Your task to perform on an android device: turn off javascript in the chrome app Image 0: 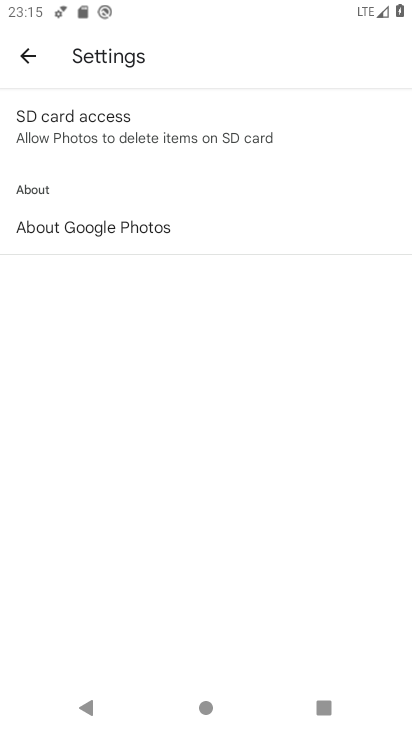
Step 0: drag from (264, 482) to (338, 235)
Your task to perform on an android device: turn off javascript in the chrome app Image 1: 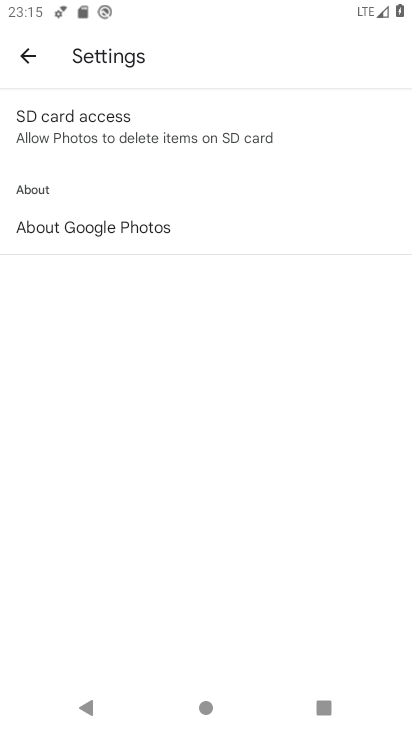
Step 1: press home button
Your task to perform on an android device: turn off javascript in the chrome app Image 2: 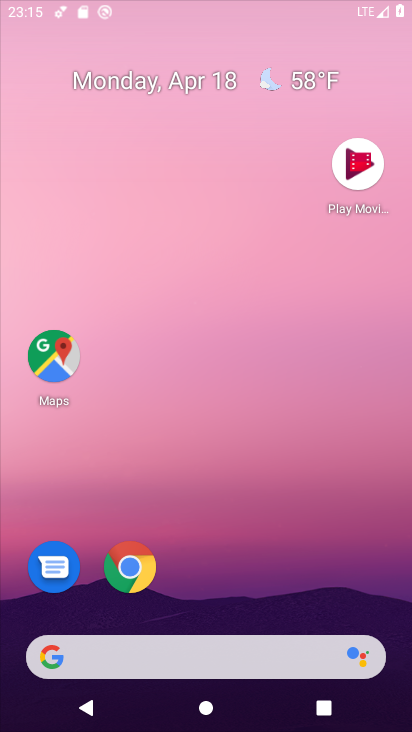
Step 2: click (285, 15)
Your task to perform on an android device: turn off javascript in the chrome app Image 3: 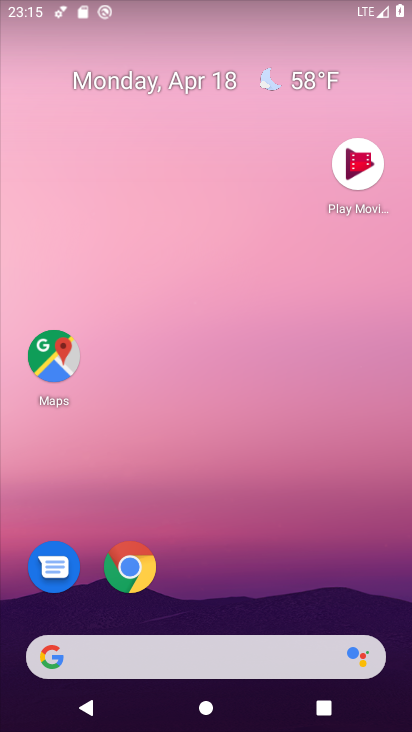
Step 3: drag from (191, 545) to (206, 189)
Your task to perform on an android device: turn off javascript in the chrome app Image 4: 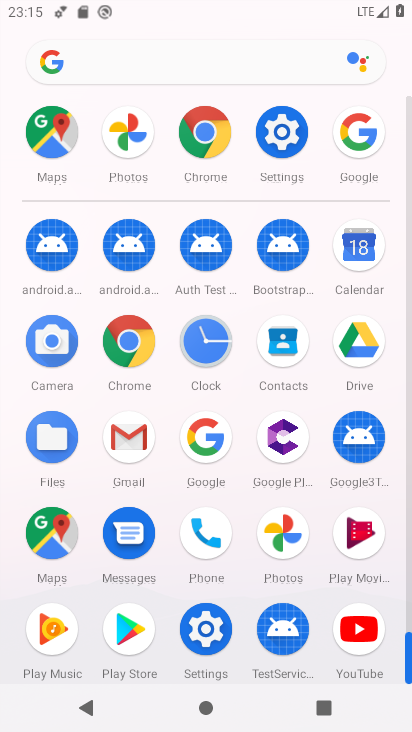
Step 4: click (123, 341)
Your task to perform on an android device: turn off javascript in the chrome app Image 5: 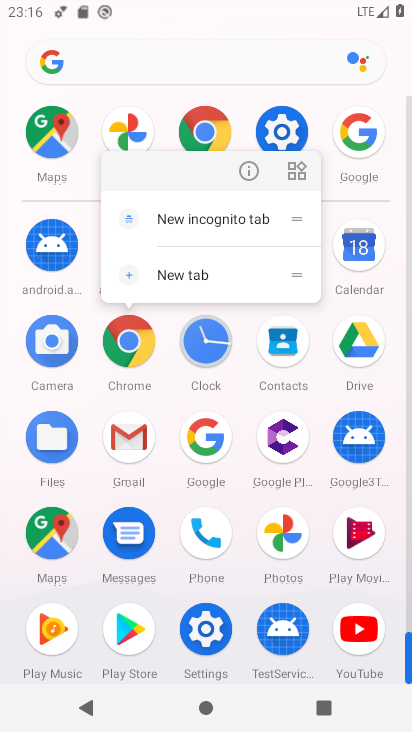
Step 5: click (251, 172)
Your task to perform on an android device: turn off javascript in the chrome app Image 6: 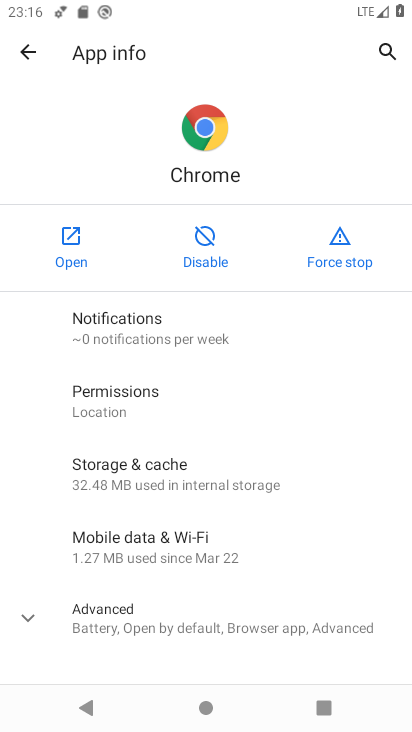
Step 6: click (78, 241)
Your task to perform on an android device: turn off javascript in the chrome app Image 7: 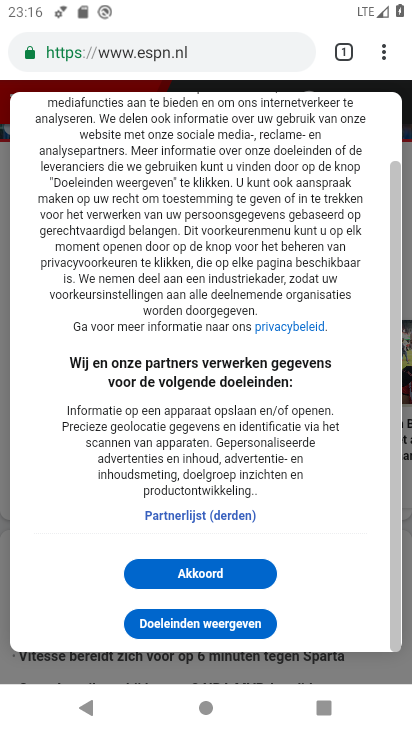
Step 7: drag from (297, 533) to (298, 307)
Your task to perform on an android device: turn off javascript in the chrome app Image 8: 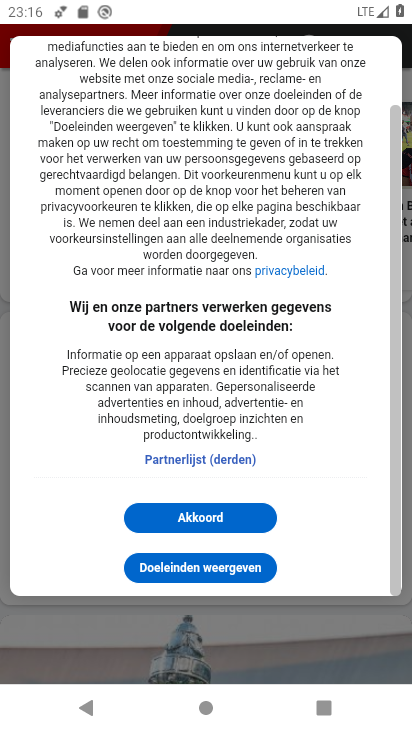
Step 8: drag from (336, 133) to (271, 566)
Your task to perform on an android device: turn off javascript in the chrome app Image 9: 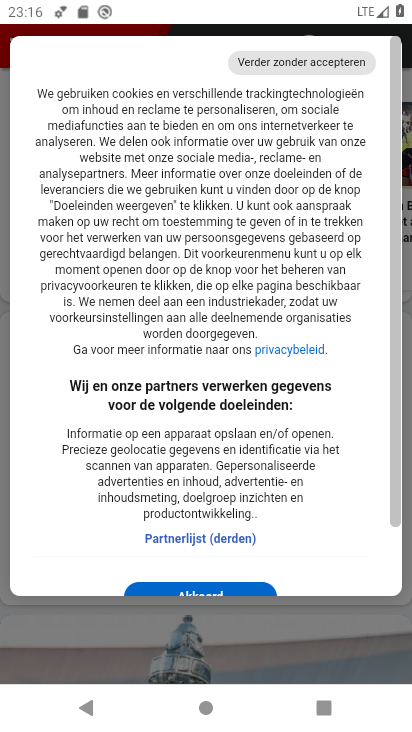
Step 9: drag from (301, 180) to (342, 441)
Your task to perform on an android device: turn off javascript in the chrome app Image 10: 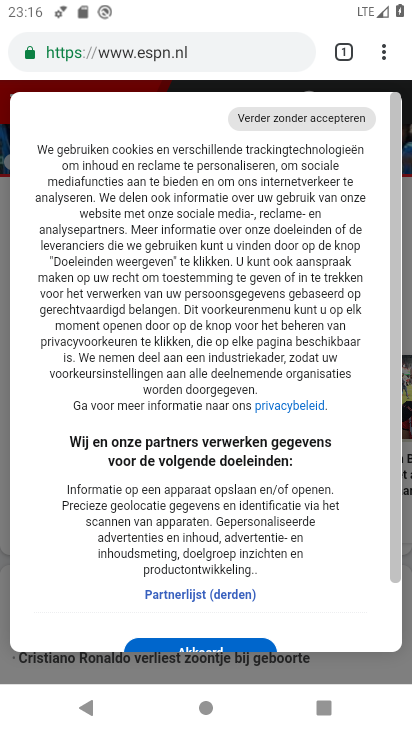
Step 10: drag from (393, 40) to (228, 604)
Your task to perform on an android device: turn off javascript in the chrome app Image 11: 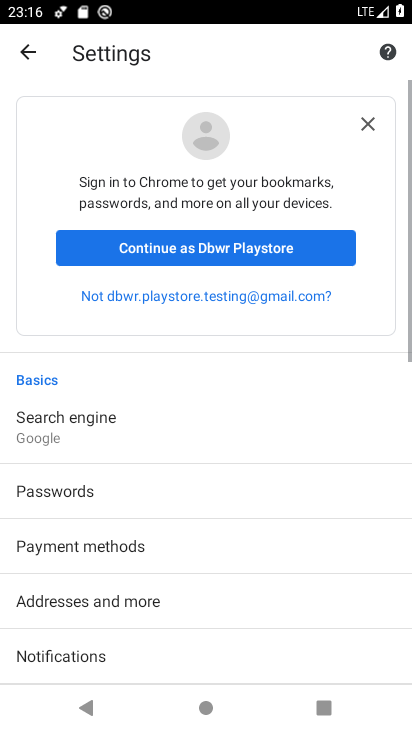
Step 11: drag from (183, 511) to (266, 151)
Your task to perform on an android device: turn off javascript in the chrome app Image 12: 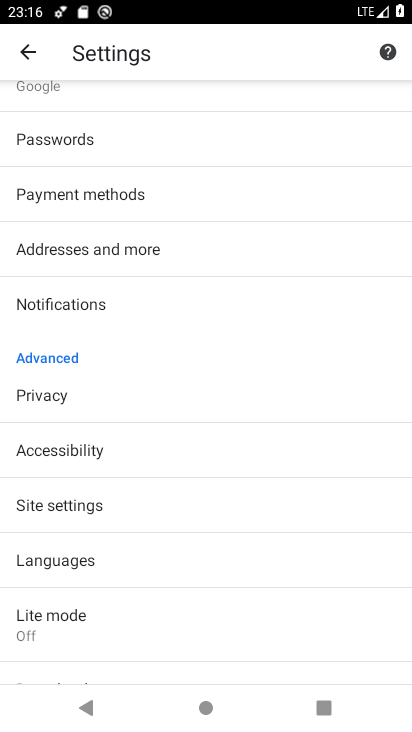
Step 12: drag from (140, 540) to (215, 209)
Your task to perform on an android device: turn off javascript in the chrome app Image 13: 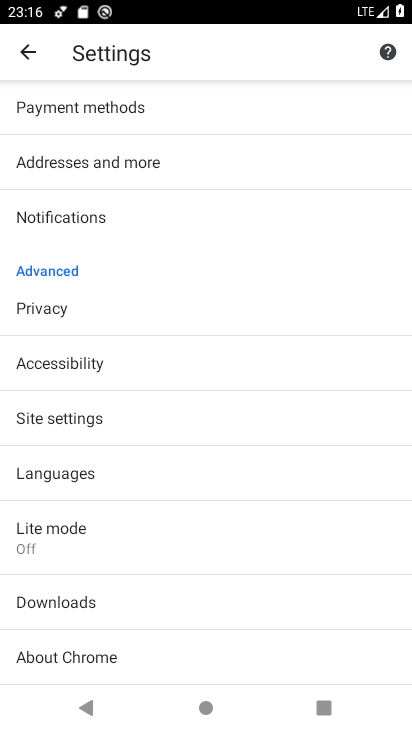
Step 13: click (87, 432)
Your task to perform on an android device: turn off javascript in the chrome app Image 14: 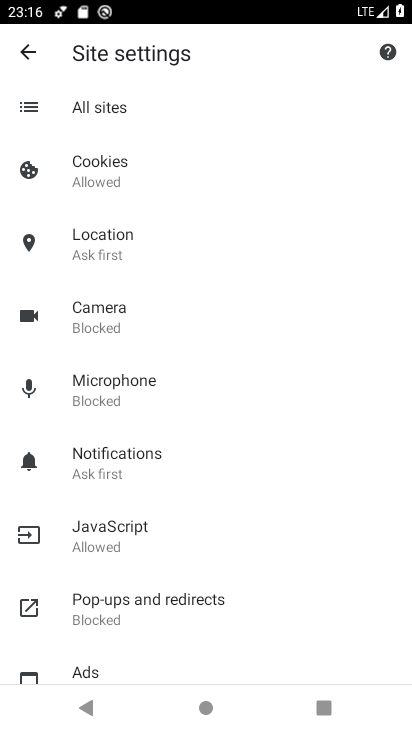
Step 14: click (146, 528)
Your task to perform on an android device: turn off javascript in the chrome app Image 15: 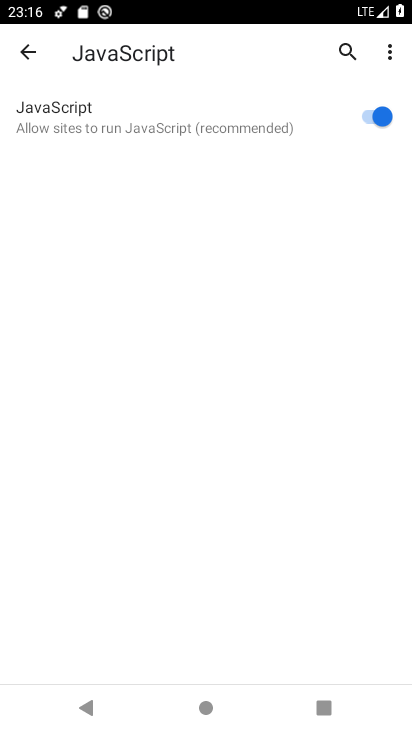
Step 15: click (368, 115)
Your task to perform on an android device: turn off javascript in the chrome app Image 16: 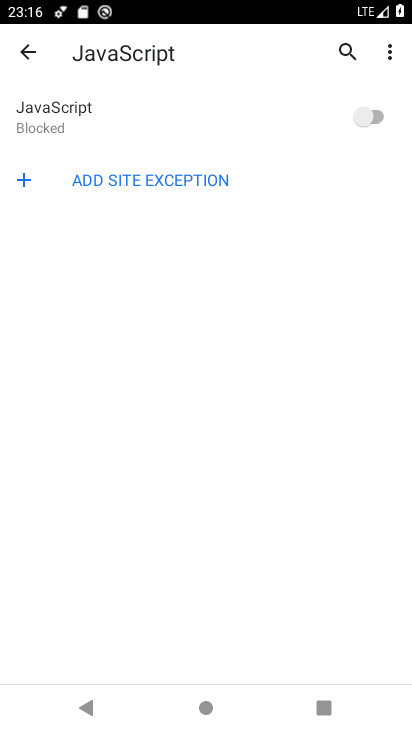
Step 16: task complete